Your task to perform on an android device: Search for Italian restaurants on Maps Image 0: 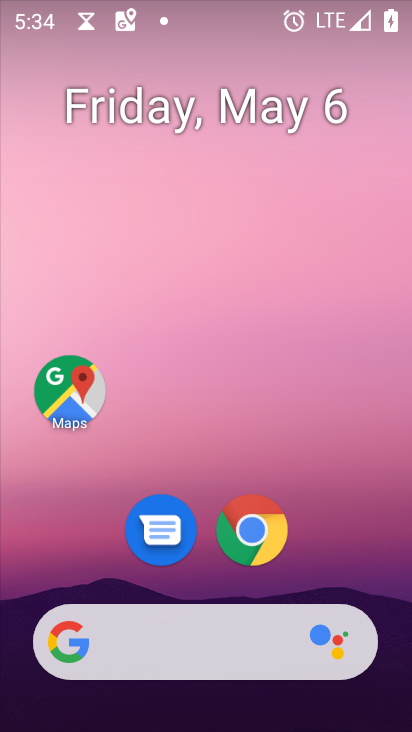
Step 0: click (62, 384)
Your task to perform on an android device: Search for Italian restaurants on Maps Image 1: 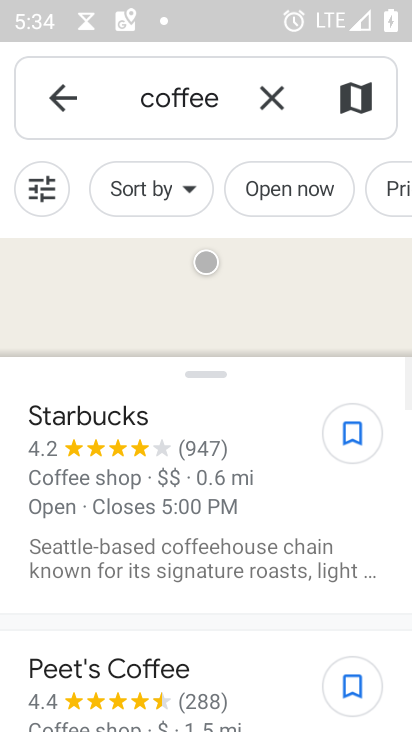
Step 1: click (266, 97)
Your task to perform on an android device: Search for Italian restaurants on Maps Image 2: 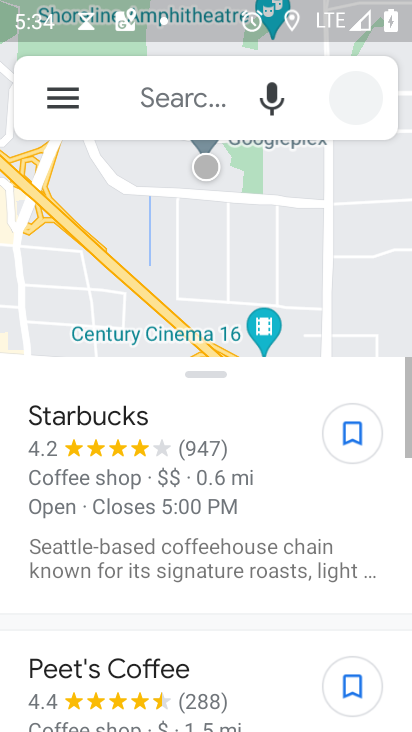
Step 2: click (144, 85)
Your task to perform on an android device: Search for Italian restaurants on Maps Image 3: 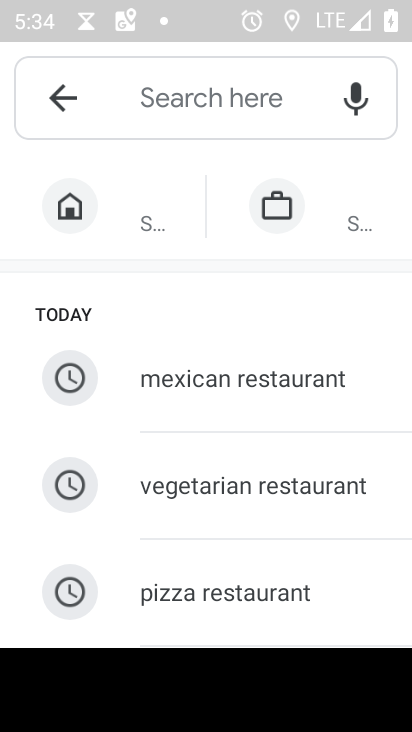
Step 3: drag from (207, 578) to (206, 246)
Your task to perform on an android device: Search for Italian restaurants on Maps Image 4: 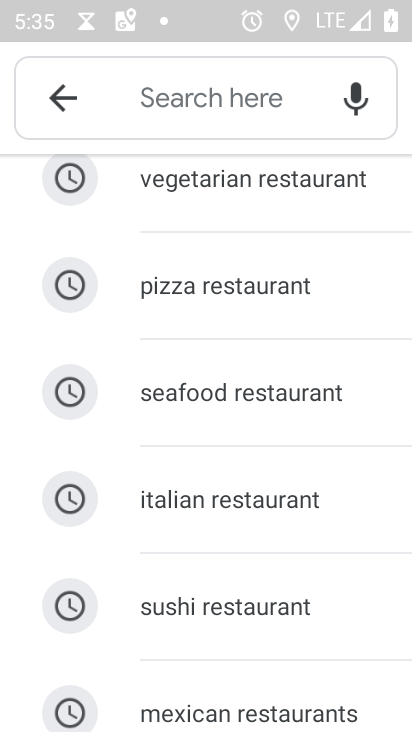
Step 4: click (201, 498)
Your task to perform on an android device: Search for Italian restaurants on Maps Image 5: 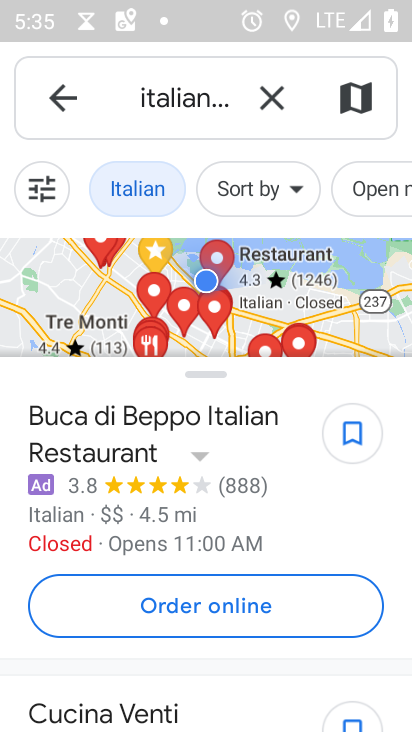
Step 5: task complete